Your task to perform on an android device: Open CNN.com Image 0: 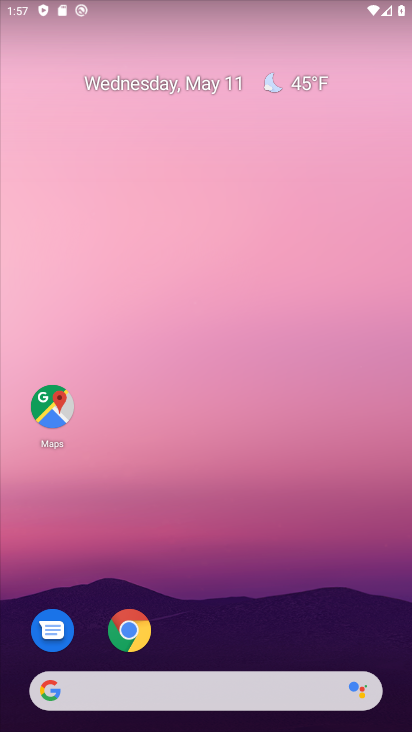
Step 0: click (125, 625)
Your task to perform on an android device: Open CNN.com Image 1: 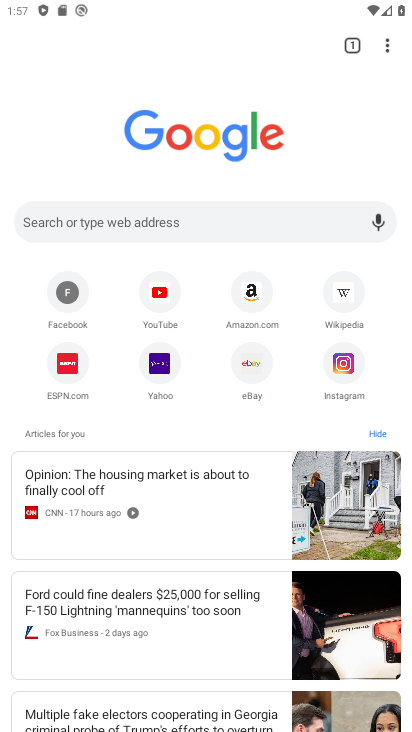
Step 1: click (220, 223)
Your task to perform on an android device: Open CNN.com Image 2: 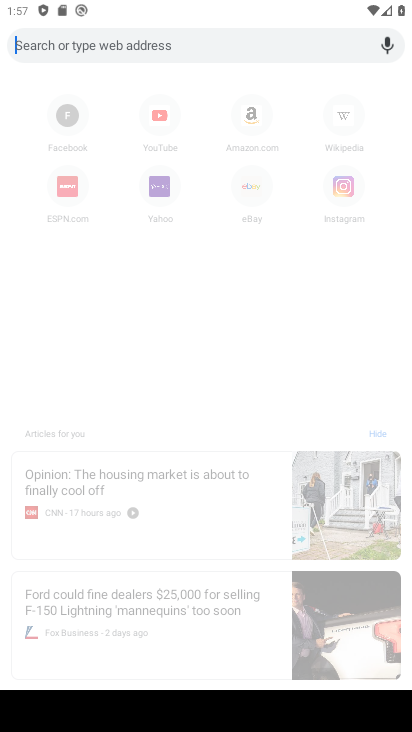
Step 2: type "CNN.com"
Your task to perform on an android device: Open CNN.com Image 3: 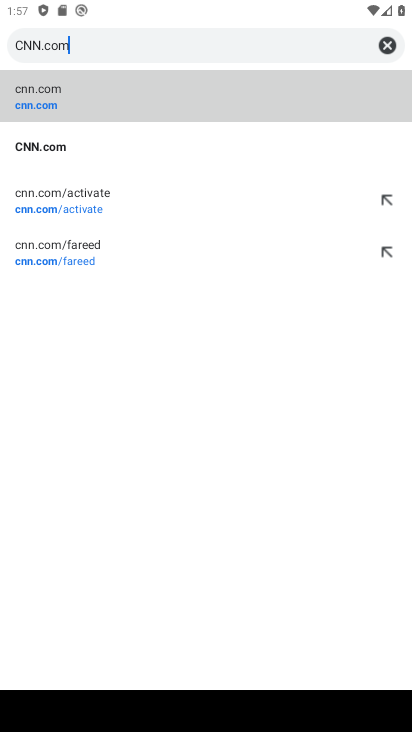
Step 3: click (64, 95)
Your task to perform on an android device: Open CNN.com Image 4: 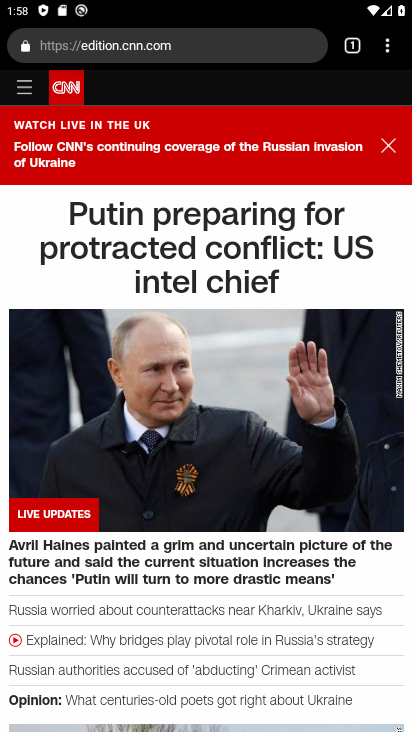
Step 4: task complete